Your task to perform on an android device: Open Amazon Image 0: 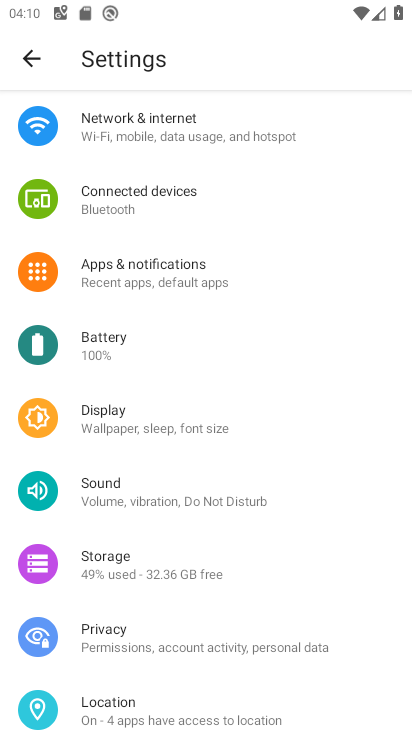
Step 0: press home button
Your task to perform on an android device: Open Amazon Image 1: 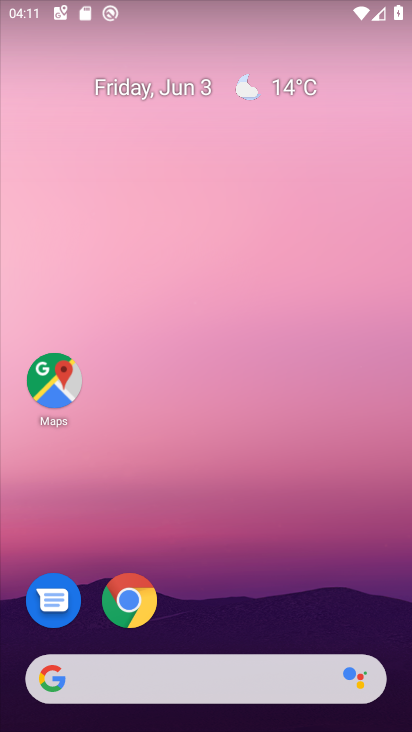
Step 1: click (133, 602)
Your task to perform on an android device: Open Amazon Image 2: 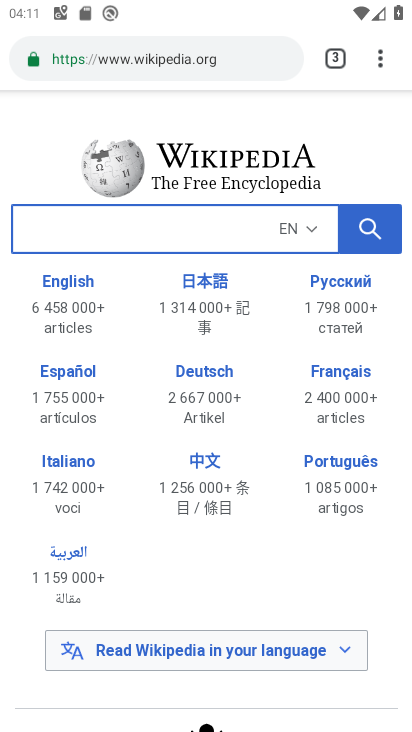
Step 2: click (218, 50)
Your task to perform on an android device: Open Amazon Image 3: 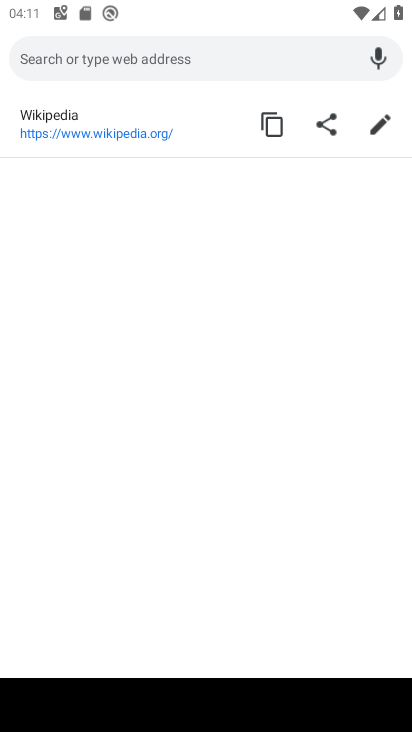
Step 3: type "amazon"
Your task to perform on an android device: Open Amazon Image 4: 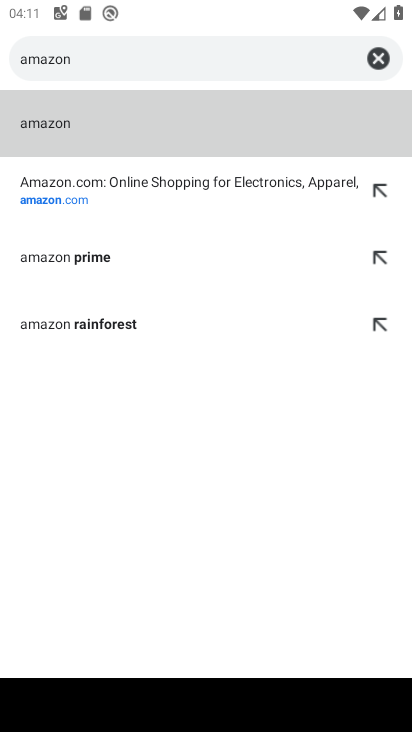
Step 4: click (56, 196)
Your task to perform on an android device: Open Amazon Image 5: 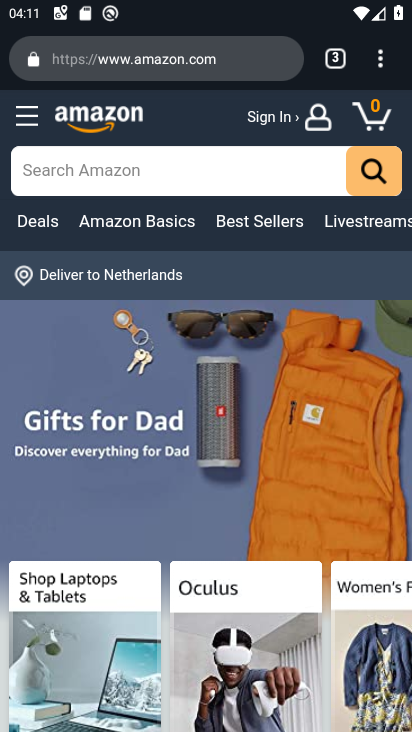
Step 5: task complete